Your task to perform on an android device: Search for seafood restaurants on Google Maps Image 0: 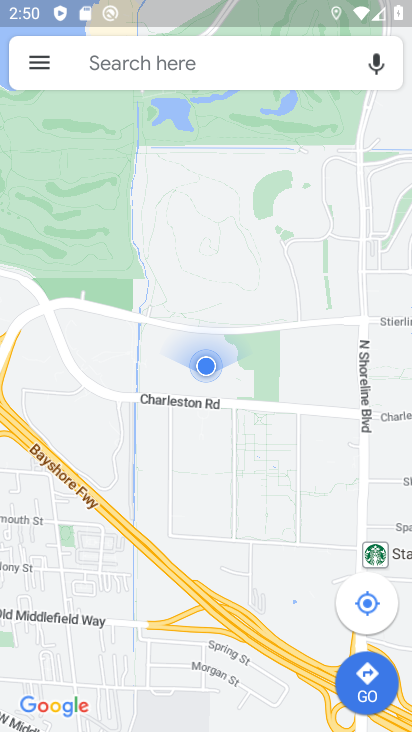
Step 0: press back button
Your task to perform on an android device: Search for seafood restaurants on Google Maps Image 1: 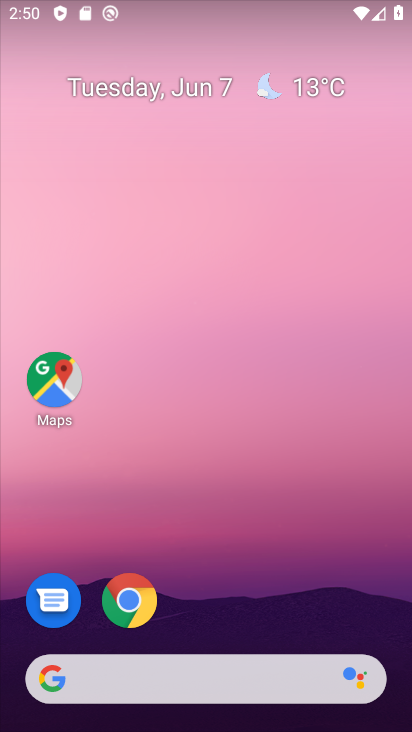
Step 1: click (37, 377)
Your task to perform on an android device: Search for seafood restaurants on Google Maps Image 2: 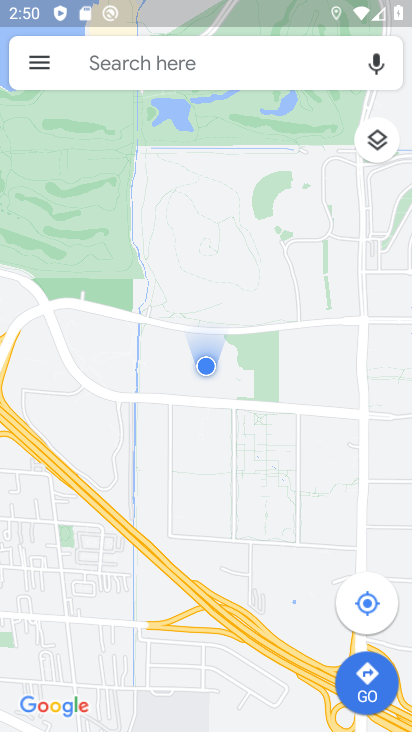
Step 2: click (151, 63)
Your task to perform on an android device: Search for seafood restaurants on Google Maps Image 3: 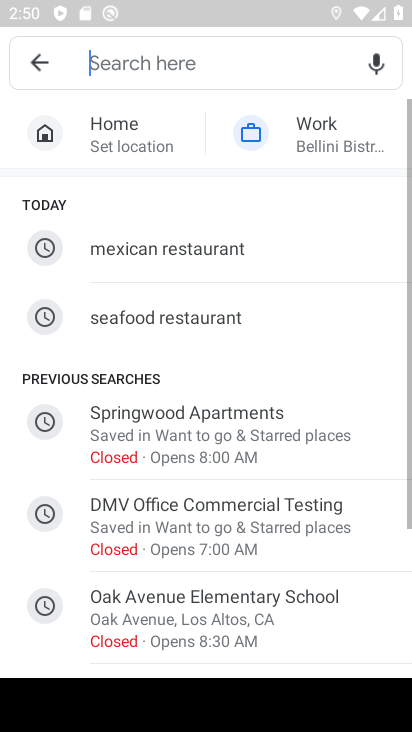
Step 3: click (188, 318)
Your task to perform on an android device: Search for seafood restaurants on Google Maps Image 4: 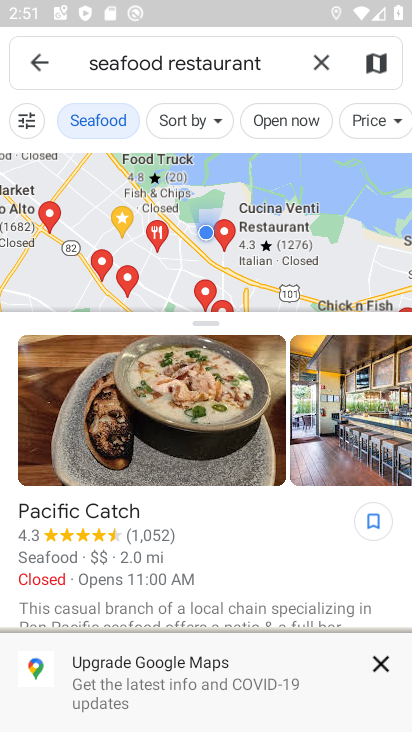
Step 4: task complete